Your task to perform on an android device: turn off airplane mode Image 0: 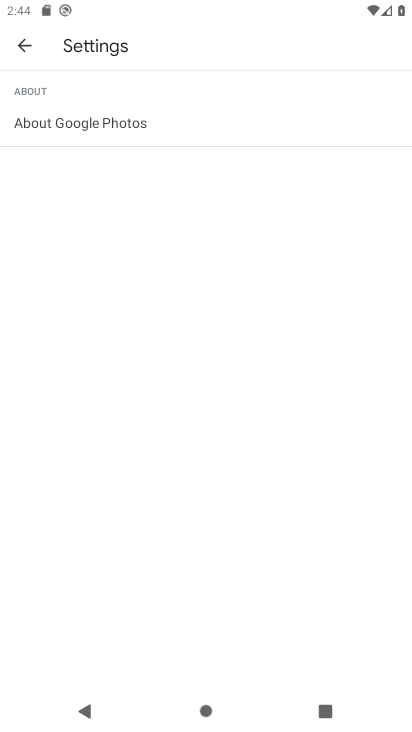
Step 0: press home button
Your task to perform on an android device: turn off airplane mode Image 1: 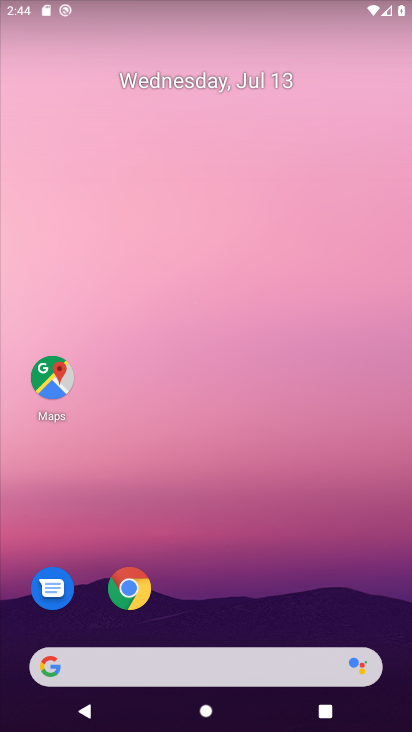
Step 1: drag from (185, 620) to (174, 41)
Your task to perform on an android device: turn off airplane mode Image 2: 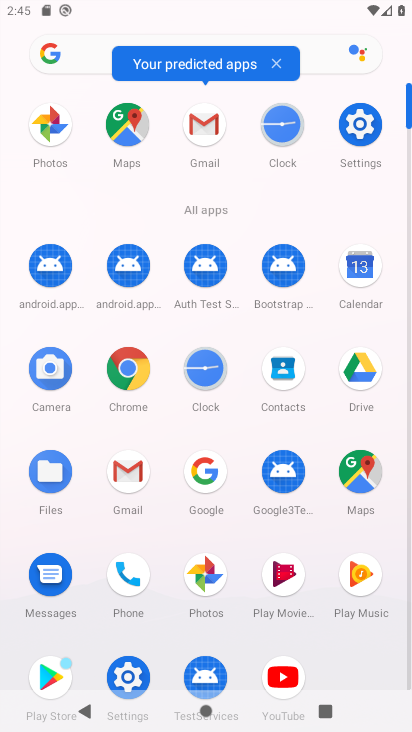
Step 2: click (363, 129)
Your task to perform on an android device: turn off airplane mode Image 3: 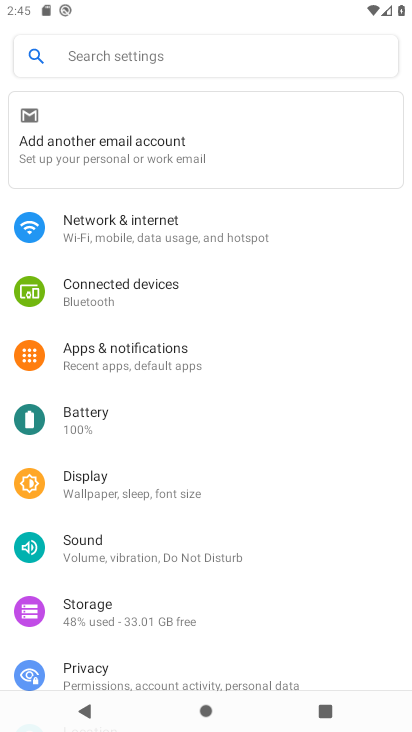
Step 3: drag from (174, 138) to (152, 0)
Your task to perform on an android device: turn off airplane mode Image 4: 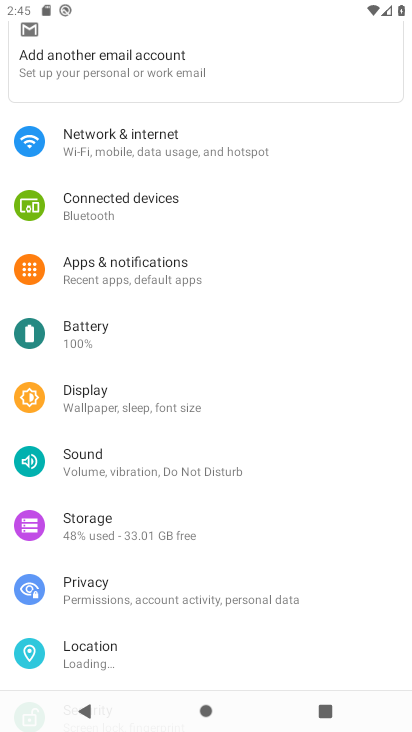
Step 4: click (148, 123)
Your task to perform on an android device: turn off airplane mode Image 5: 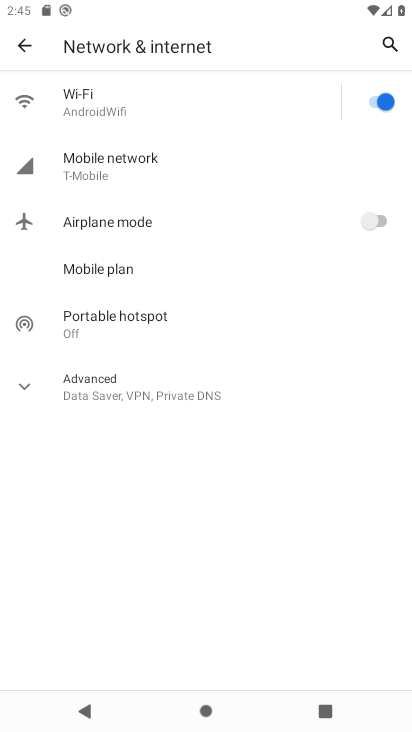
Step 5: task complete